Your task to perform on an android device: Go to Google Image 0: 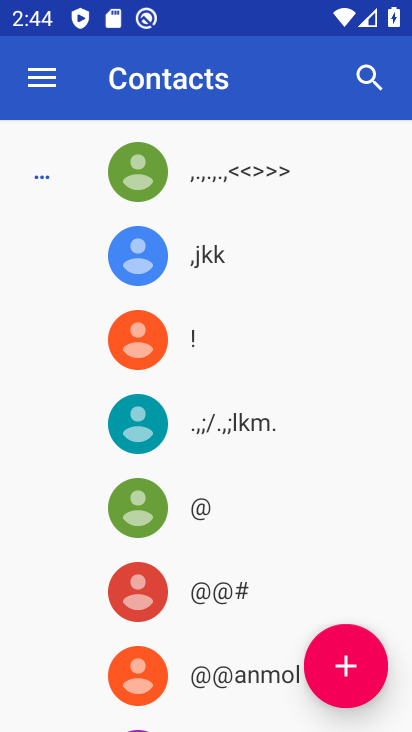
Step 0: press back button
Your task to perform on an android device: Go to Google Image 1: 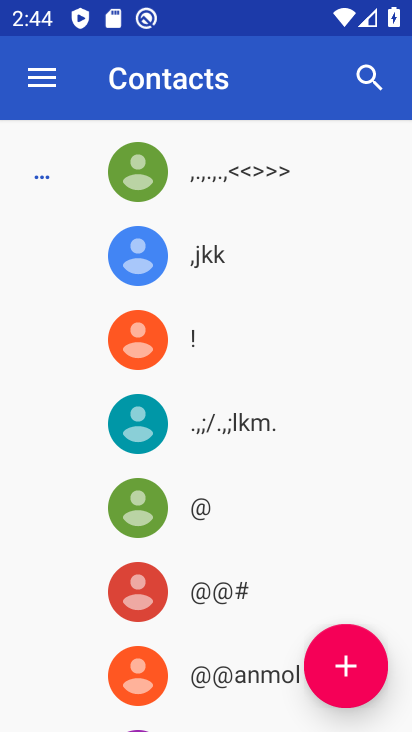
Step 1: press back button
Your task to perform on an android device: Go to Google Image 2: 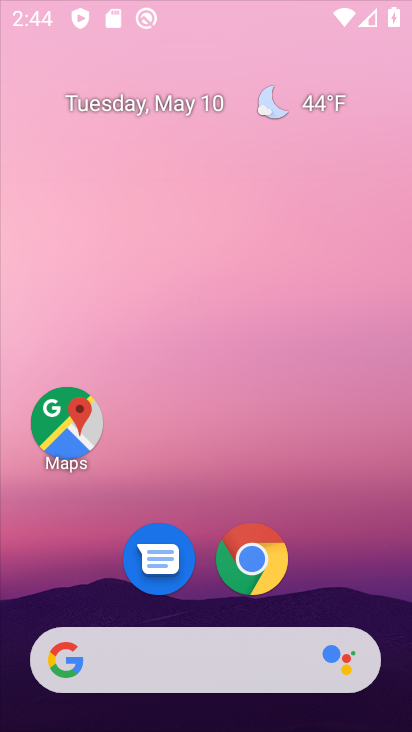
Step 2: press back button
Your task to perform on an android device: Go to Google Image 3: 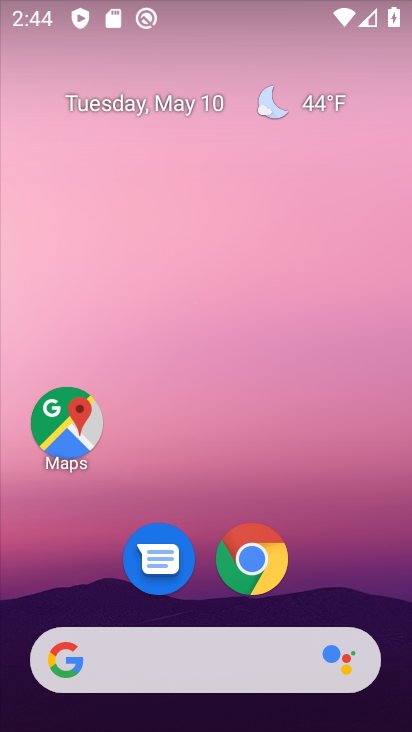
Step 3: drag from (356, 587) to (103, 6)
Your task to perform on an android device: Go to Google Image 4: 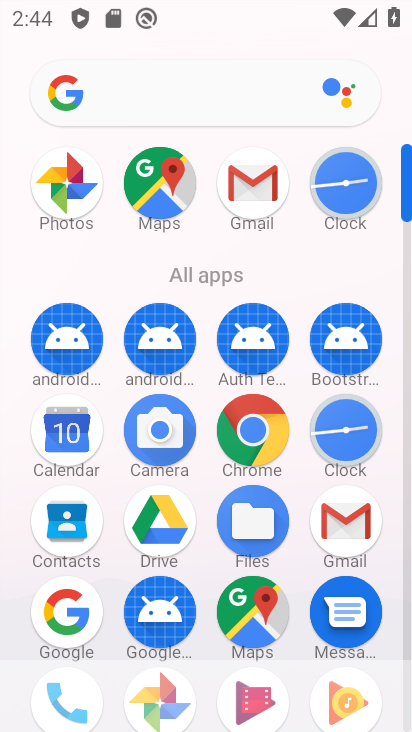
Step 4: drag from (283, 411) to (119, 72)
Your task to perform on an android device: Go to Google Image 5: 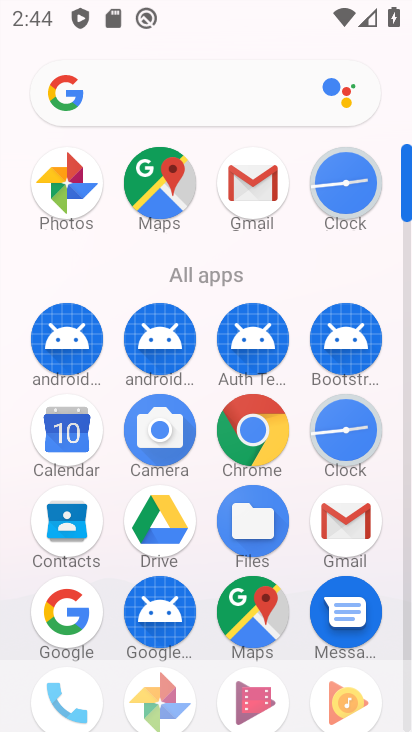
Step 5: click (56, 608)
Your task to perform on an android device: Go to Google Image 6: 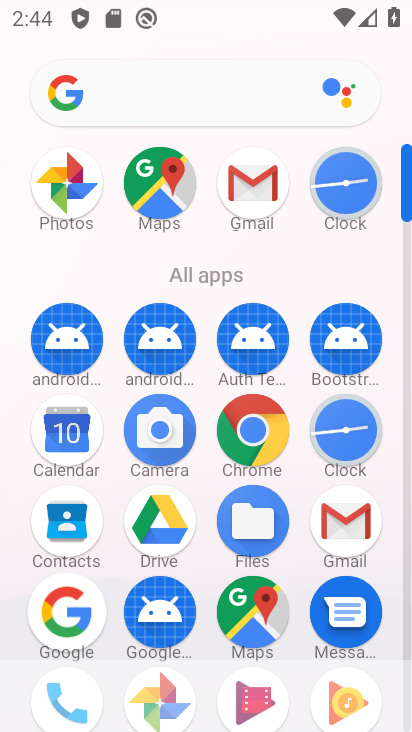
Step 6: click (58, 604)
Your task to perform on an android device: Go to Google Image 7: 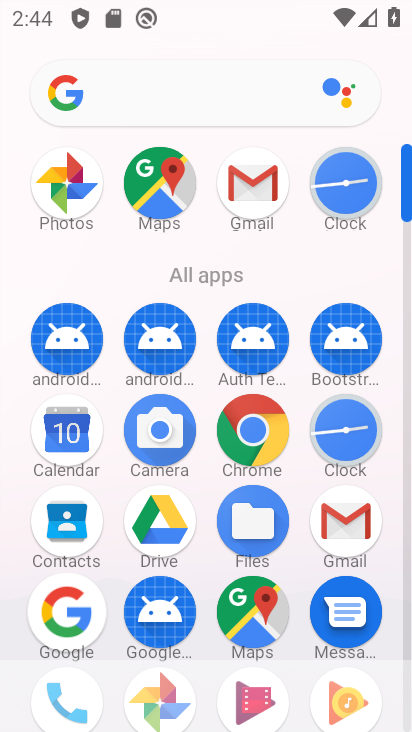
Step 7: click (48, 592)
Your task to perform on an android device: Go to Google Image 8: 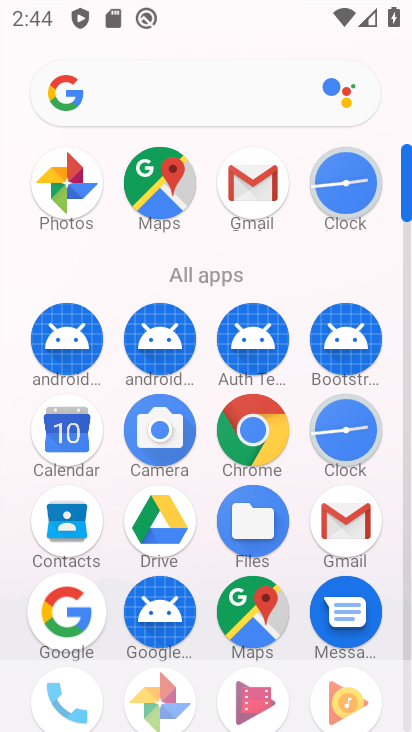
Step 8: click (50, 599)
Your task to perform on an android device: Go to Google Image 9: 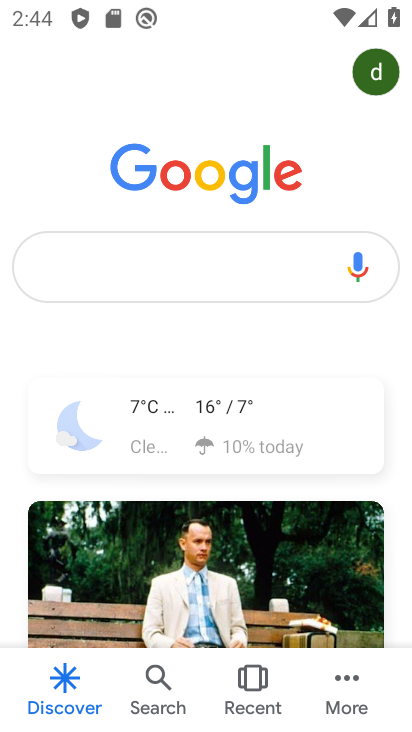
Step 9: task complete